Your task to perform on an android device: check data usage Image 0: 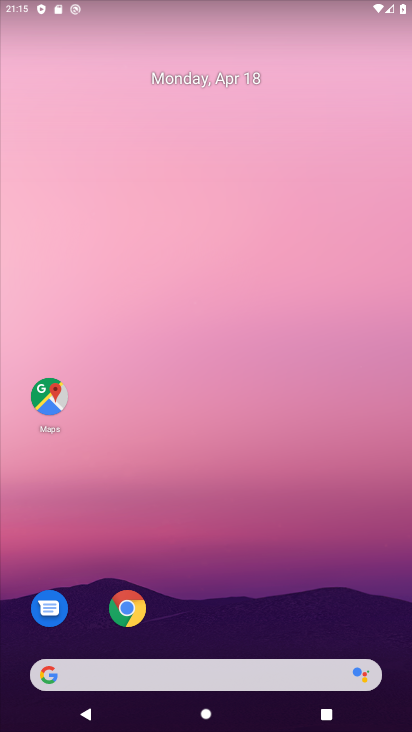
Step 0: drag from (233, 578) to (287, 144)
Your task to perform on an android device: check data usage Image 1: 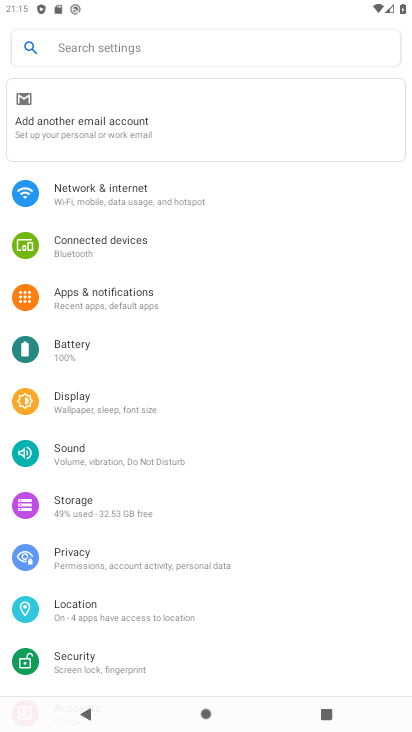
Step 1: drag from (164, 484) to (151, 422)
Your task to perform on an android device: check data usage Image 2: 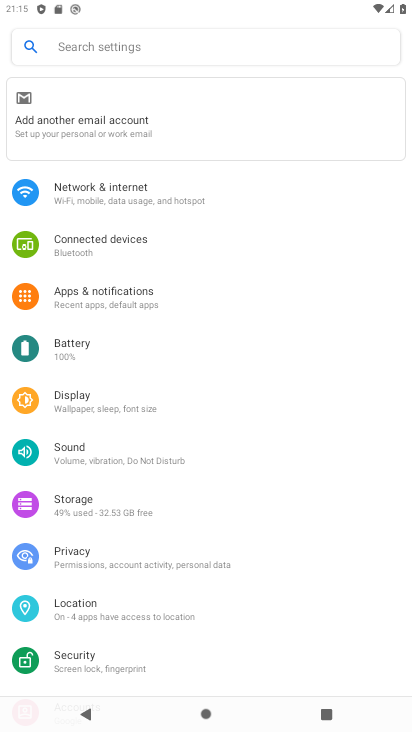
Step 2: click (117, 191)
Your task to perform on an android device: check data usage Image 3: 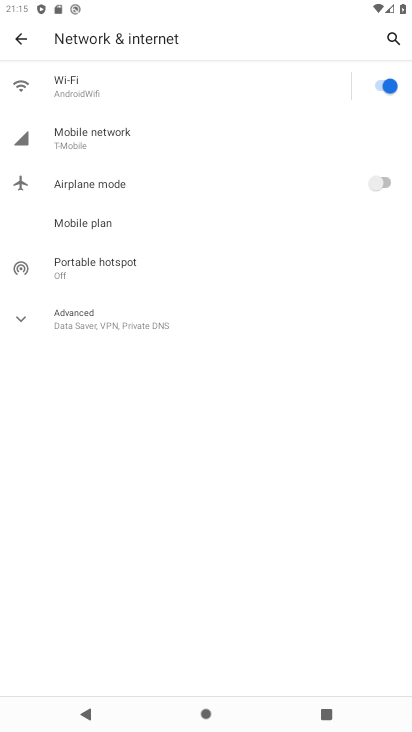
Step 3: click (78, 139)
Your task to perform on an android device: check data usage Image 4: 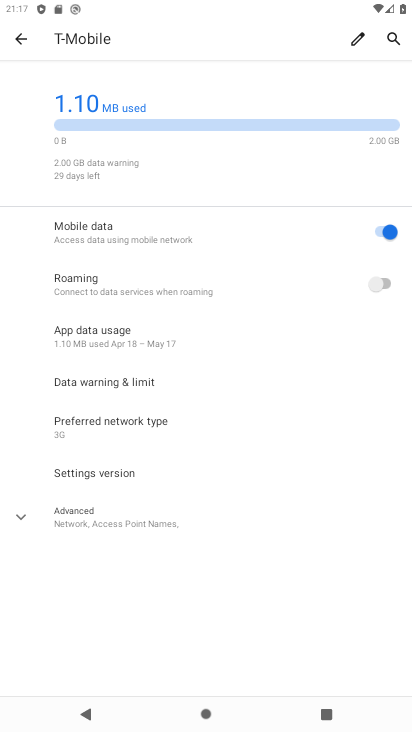
Step 4: task complete